Your task to perform on an android device: turn on wifi Image 0: 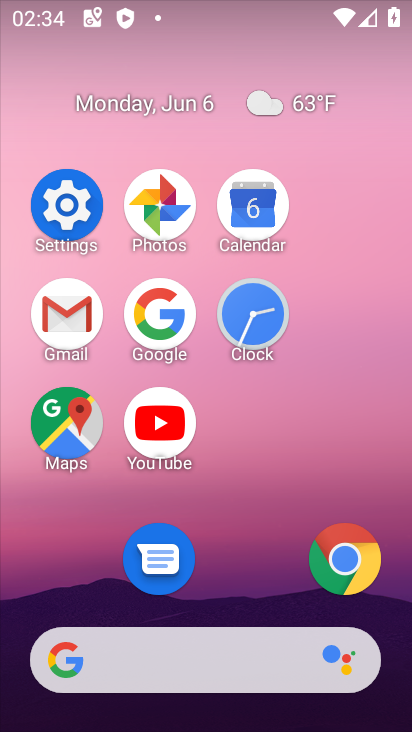
Step 0: click (50, 205)
Your task to perform on an android device: turn on wifi Image 1: 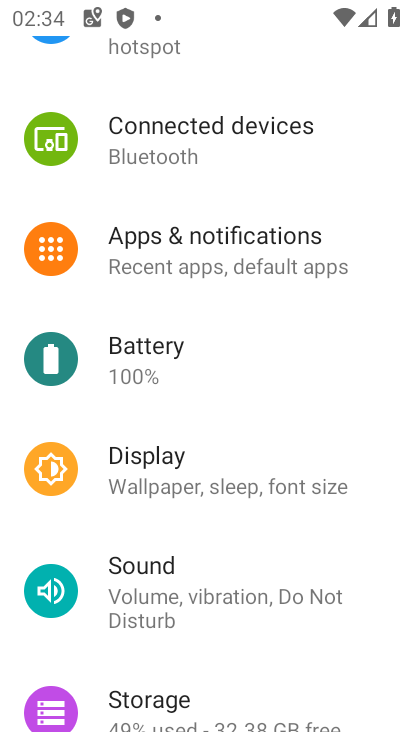
Step 1: drag from (279, 177) to (288, 615)
Your task to perform on an android device: turn on wifi Image 2: 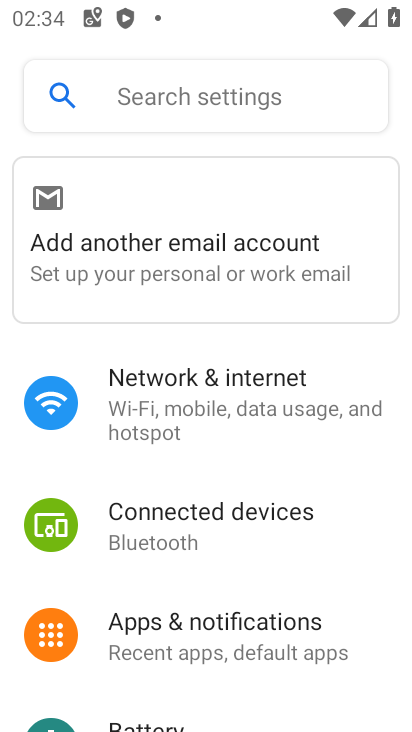
Step 2: click (246, 400)
Your task to perform on an android device: turn on wifi Image 3: 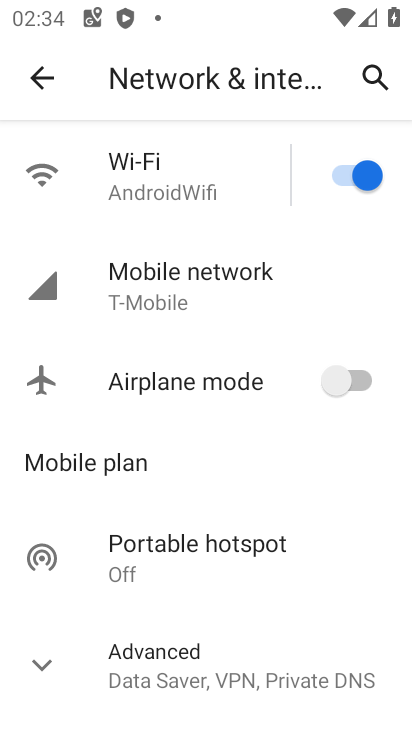
Step 3: task complete